Your task to perform on an android device: turn pop-ups off in chrome Image 0: 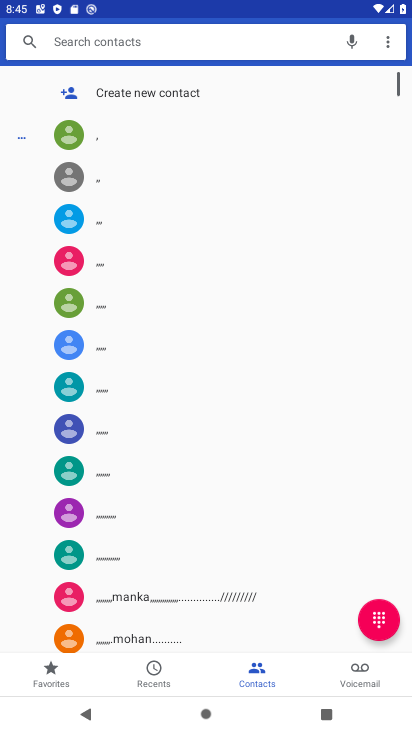
Step 0: press home button
Your task to perform on an android device: turn pop-ups off in chrome Image 1: 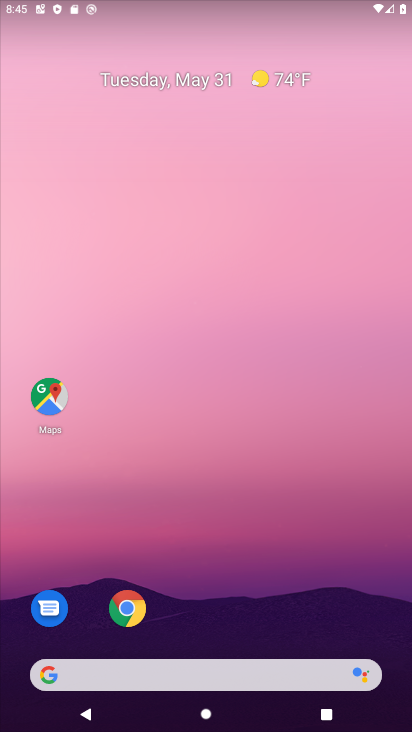
Step 1: click (115, 602)
Your task to perform on an android device: turn pop-ups off in chrome Image 2: 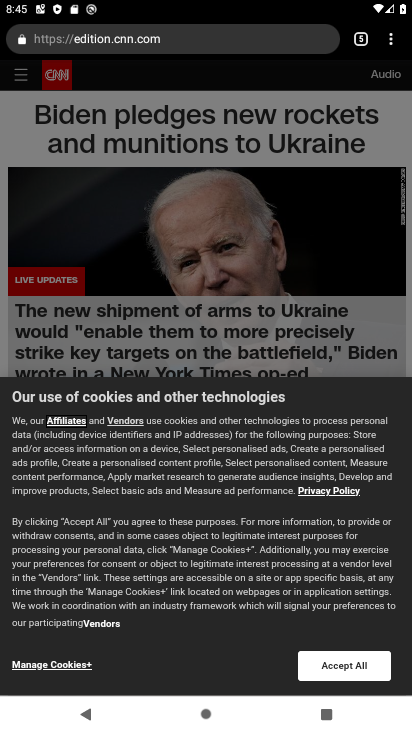
Step 2: click (388, 55)
Your task to perform on an android device: turn pop-ups off in chrome Image 3: 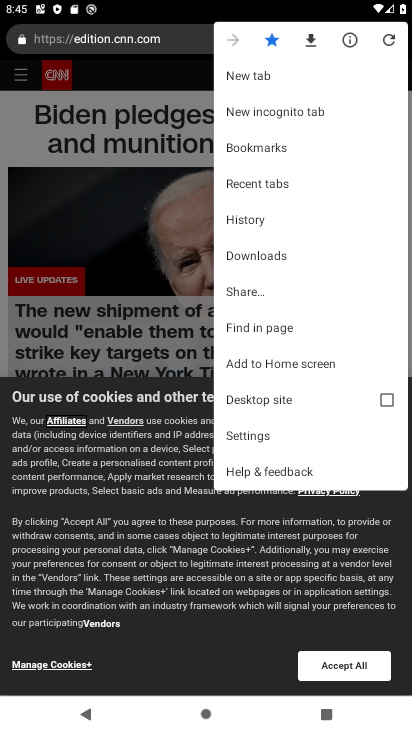
Step 3: click (263, 435)
Your task to perform on an android device: turn pop-ups off in chrome Image 4: 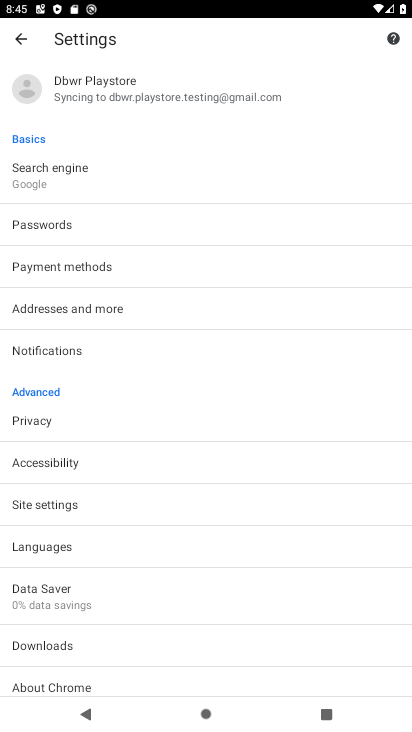
Step 4: drag from (109, 612) to (171, 210)
Your task to perform on an android device: turn pop-ups off in chrome Image 5: 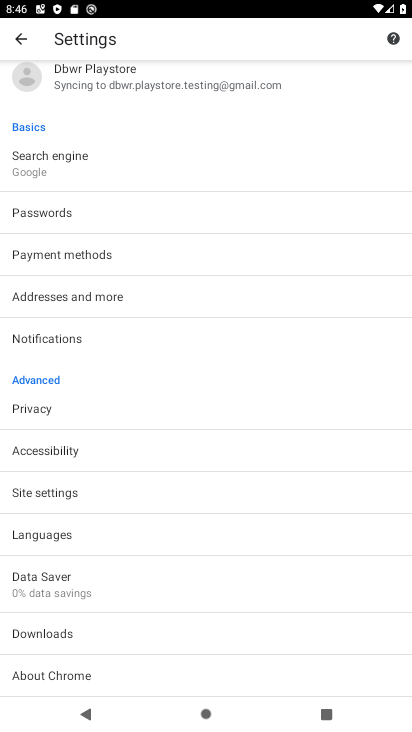
Step 5: click (35, 488)
Your task to perform on an android device: turn pop-ups off in chrome Image 6: 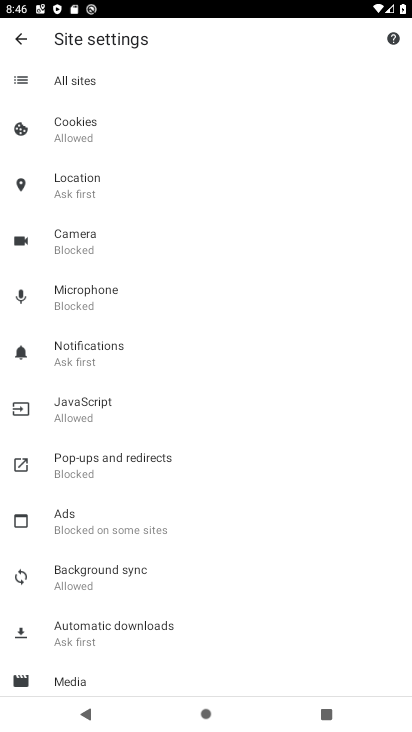
Step 6: click (102, 454)
Your task to perform on an android device: turn pop-ups off in chrome Image 7: 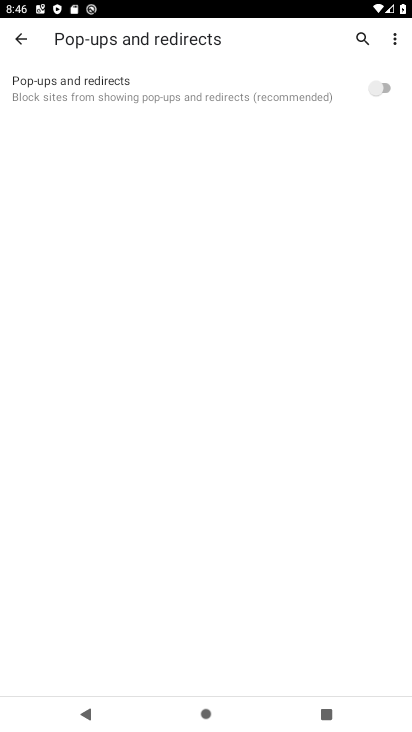
Step 7: task complete